Your task to perform on an android device: What is the news today? Image 0: 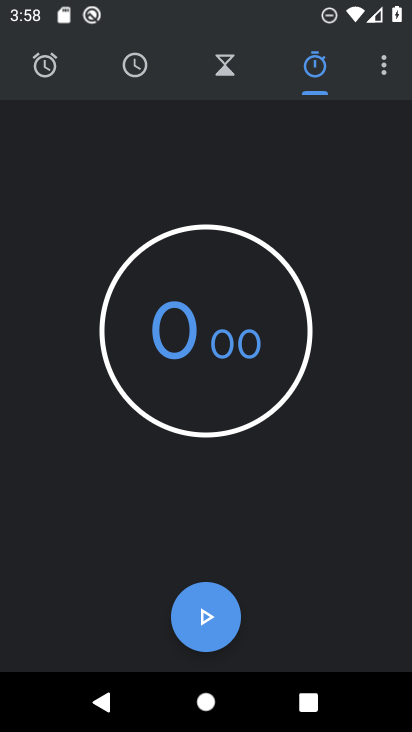
Step 0: press home button
Your task to perform on an android device: What is the news today? Image 1: 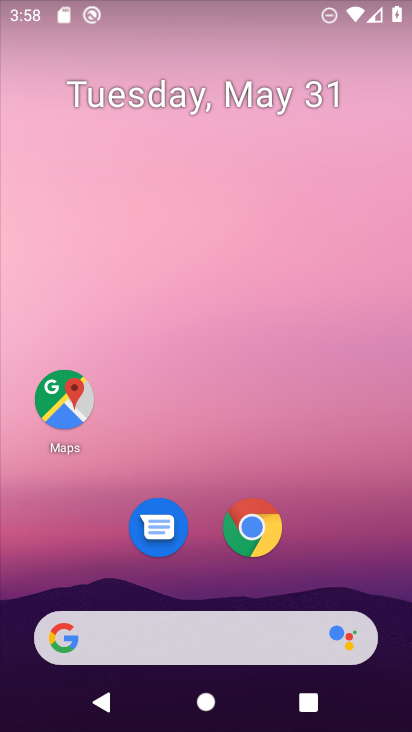
Step 1: click (236, 627)
Your task to perform on an android device: What is the news today? Image 2: 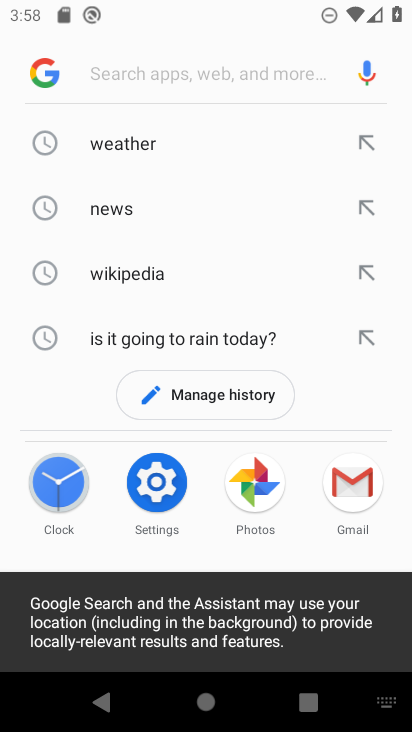
Step 2: click (113, 210)
Your task to perform on an android device: What is the news today? Image 3: 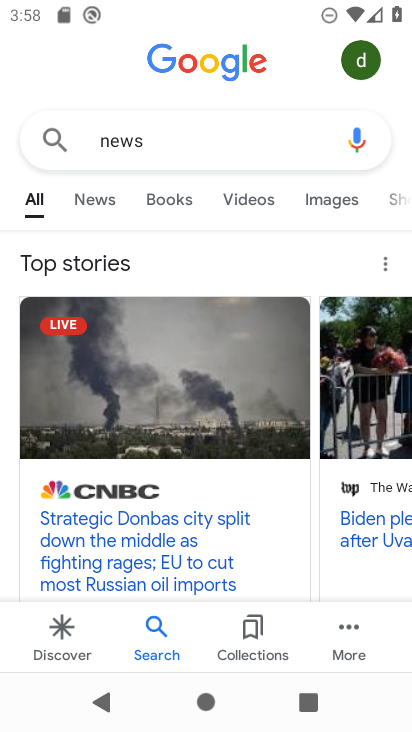
Step 3: click (77, 200)
Your task to perform on an android device: What is the news today? Image 4: 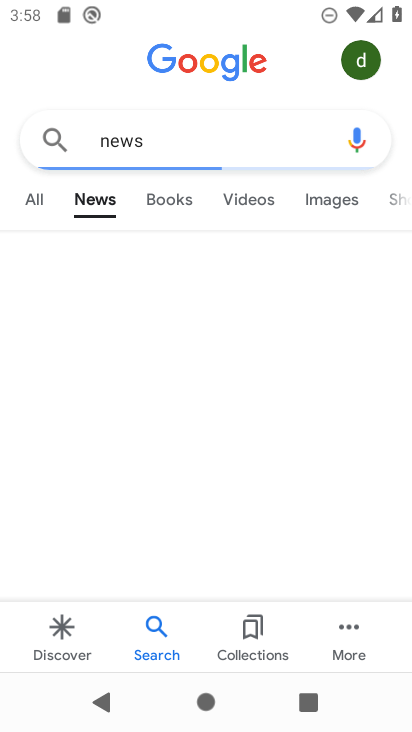
Step 4: task complete